Your task to perform on an android device: What's the weather today? Image 0: 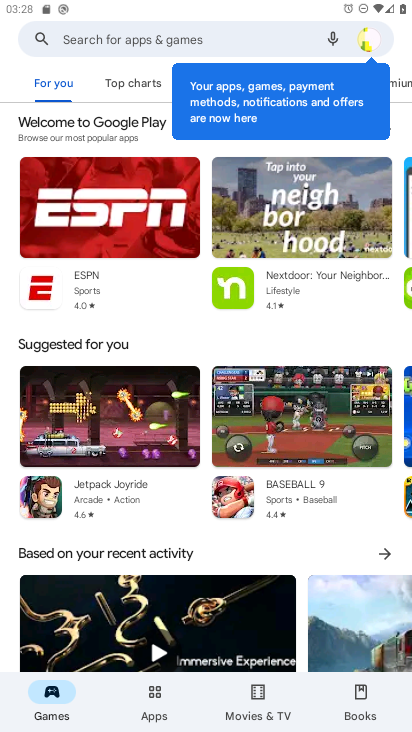
Step 0: press home button
Your task to perform on an android device: What's the weather today? Image 1: 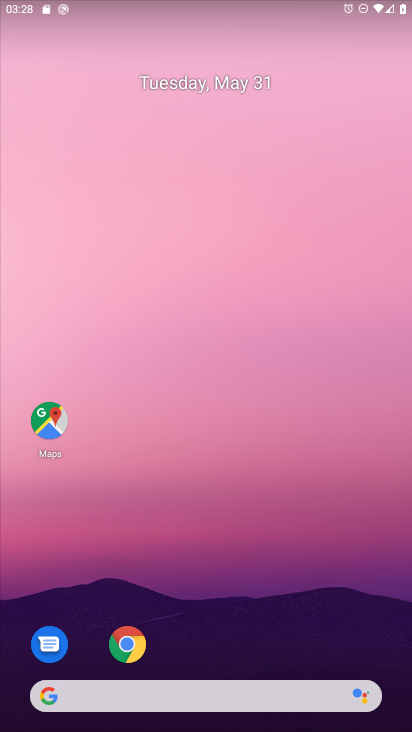
Step 1: drag from (290, 498) to (242, 30)
Your task to perform on an android device: What's the weather today? Image 2: 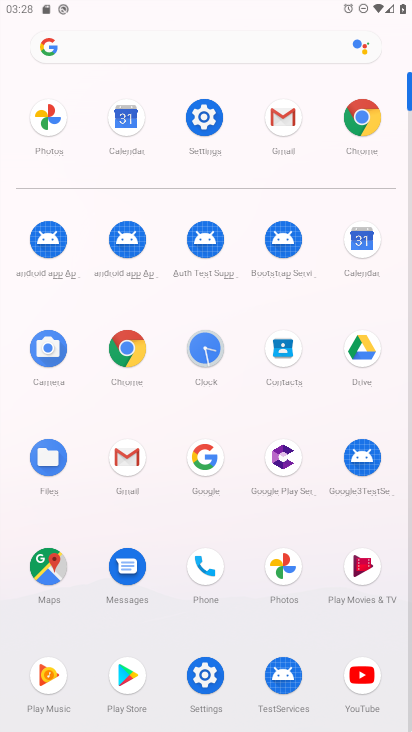
Step 2: click (125, 347)
Your task to perform on an android device: What's the weather today? Image 3: 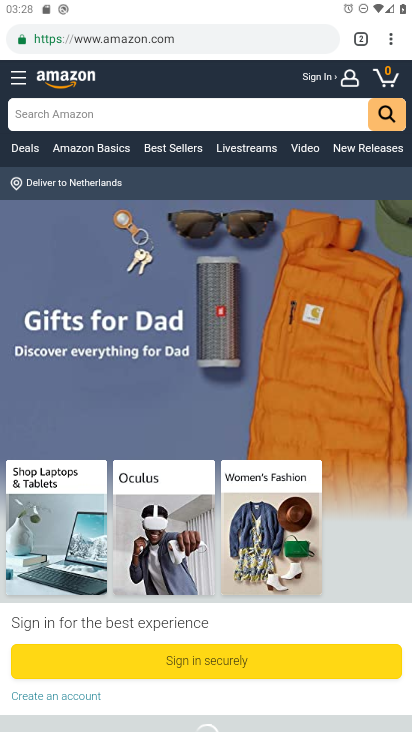
Step 3: click (204, 38)
Your task to perform on an android device: What's the weather today? Image 4: 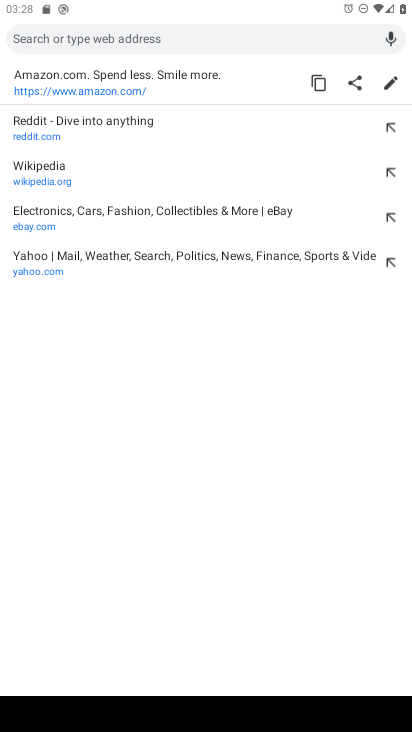
Step 4: type "weather"
Your task to perform on an android device: What's the weather today? Image 5: 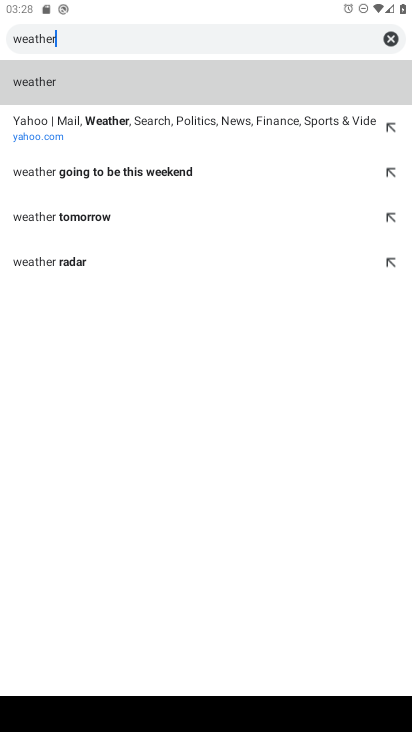
Step 5: click (49, 82)
Your task to perform on an android device: What's the weather today? Image 6: 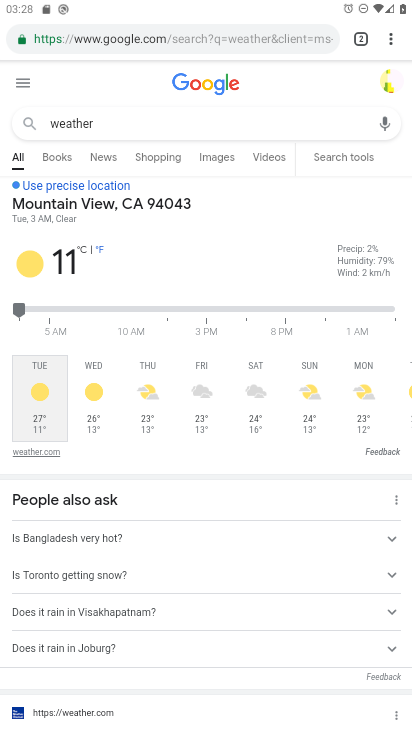
Step 6: task complete